Your task to perform on an android device: Go to Amazon Image 0: 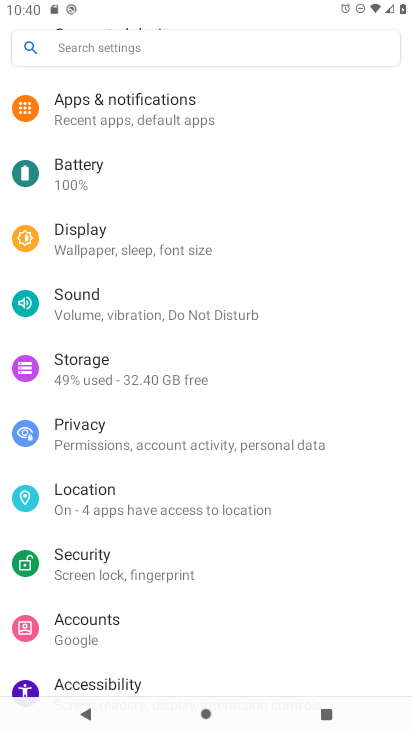
Step 0: press home button
Your task to perform on an android device: Go to Amazon Image 1: 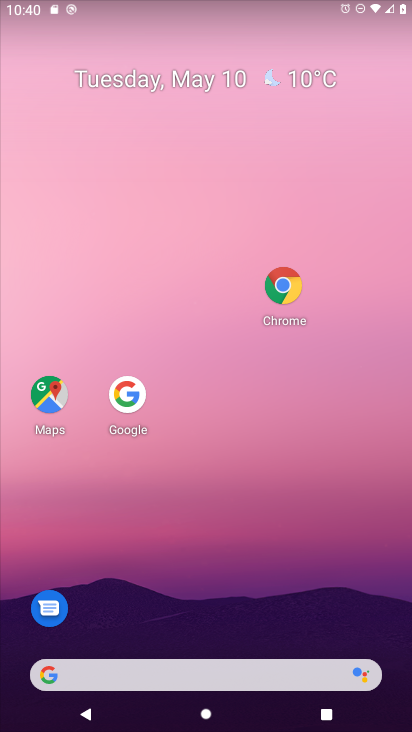
Step 1: drag from (151, 676) to (292, 117)
Your task to perform on an android device: Go to Amazon Image 2: 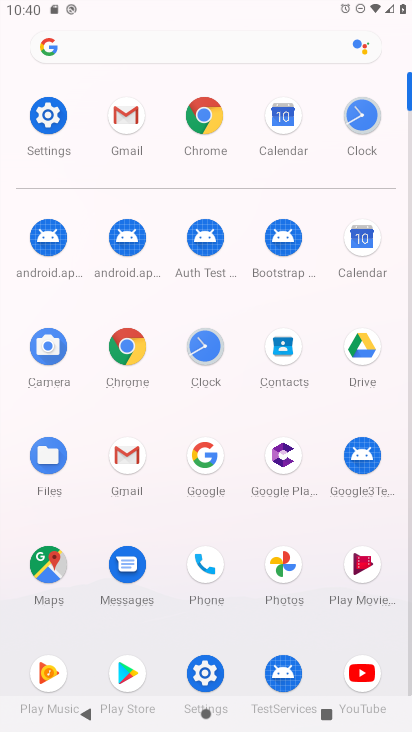
Step 2: click (201, 124)
Your task to perform on an android device: Go to Amazon Image 3: 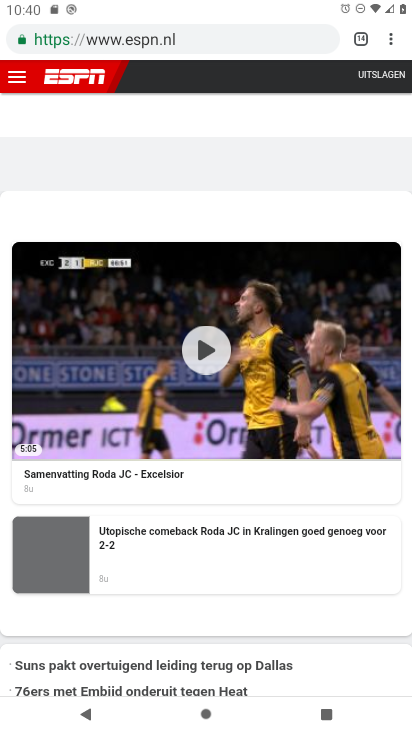
Step 3: drag from (387, 38) to (305, 77)
Your task to perform on an android device: Go to Amazon Image 4: 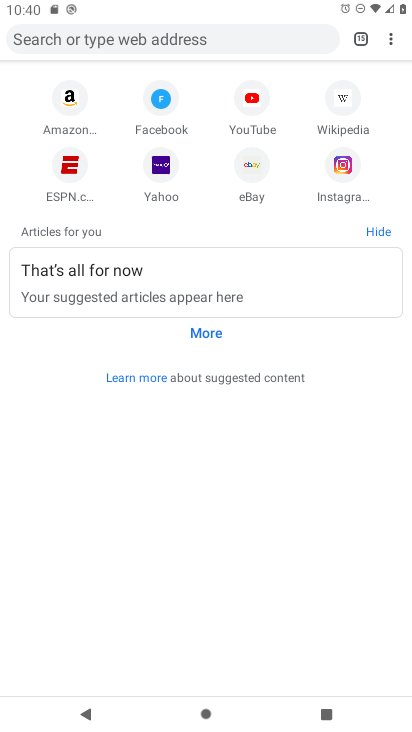
Step 4: click (68, 99)
Your task to perform on an android device: Go to Amazon Image 5: 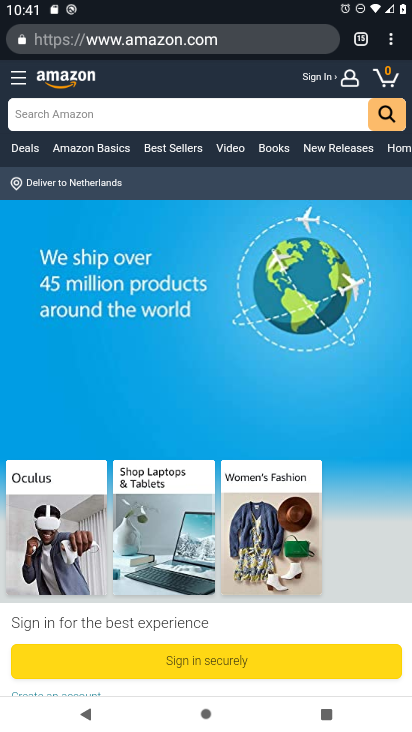
Step 5: task complete